Your task to perform on an android device: Find coffee shops on Maps Image 0: 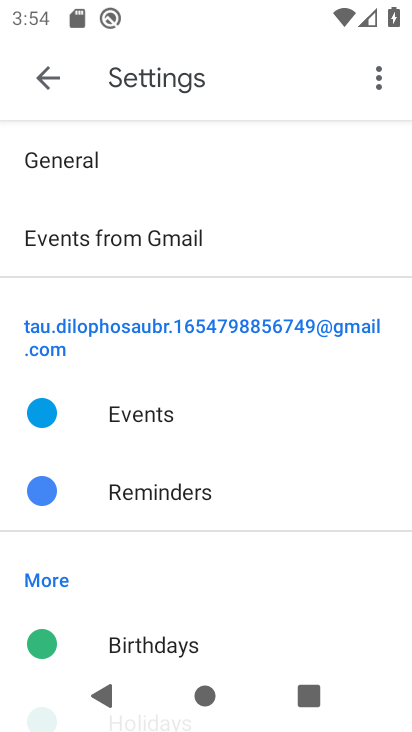
Step 0: press back button
Your task to perform on an android device: Find coffee shops on Maps Image 1: 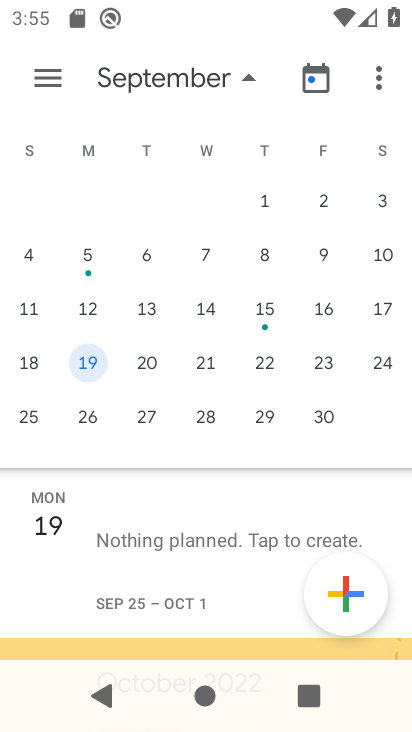
Step 1: press back button
Your task to perform on an android device: Find coffee shops on Maps Image 2: 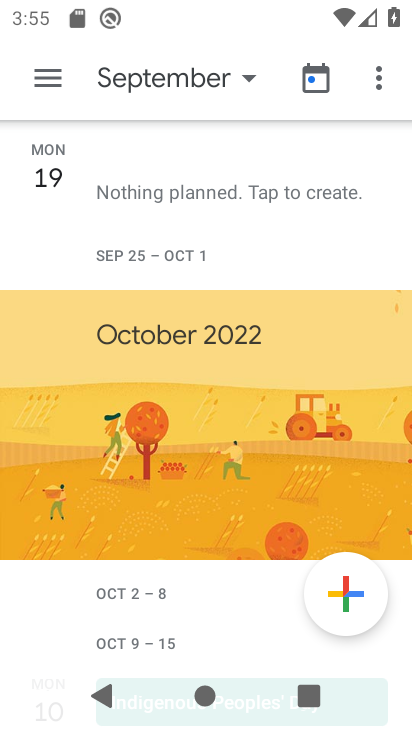
Step 2: press back button
Your task to perform on an android device: Find coffee shops on Maps Image 3: 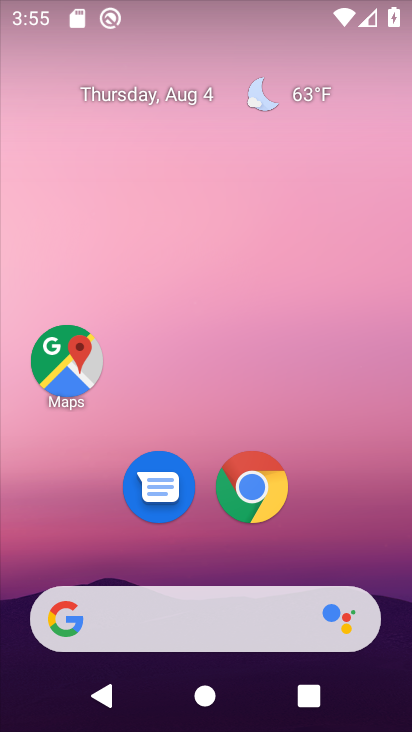
Step 3: drag from (175, 554) to (227, 53)
Your task to perform on an android device: Find coffee shops on Maps Image 4: 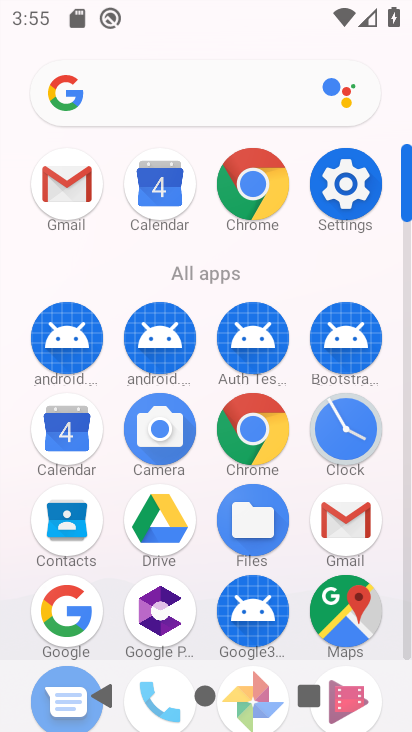
Step 4: click (328, 597)
Your task to perform on an android device: Find coffee shops on Maps Image 5: 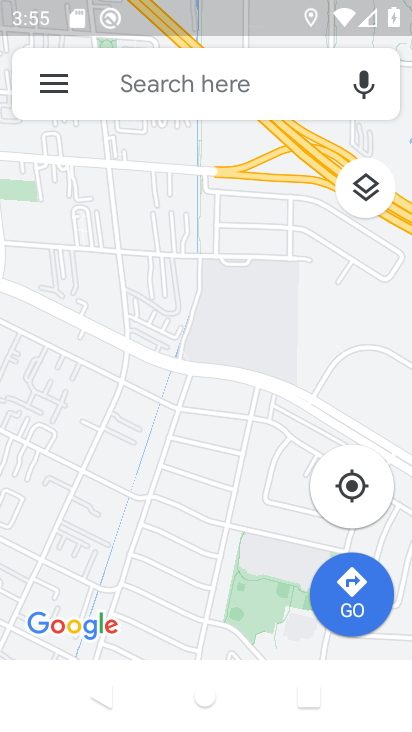
Step 5: click (168, 91)
Your task to perform on an android device: Find coffee shops on Maps Image 6: 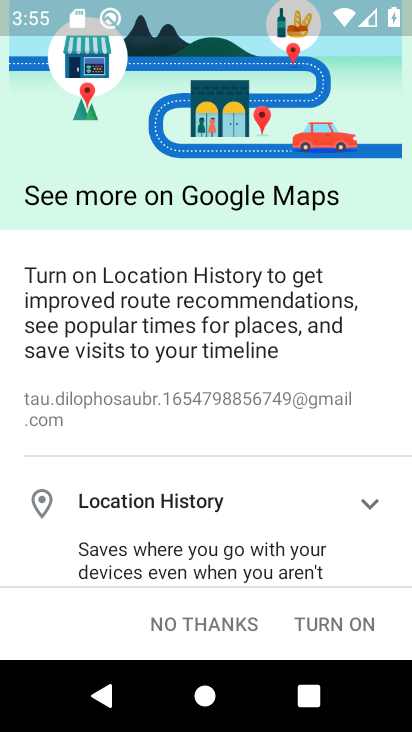
Step 6: type "coffe shops"
Your task to perform on an android device: Find coffee shops on Maps Image 7: 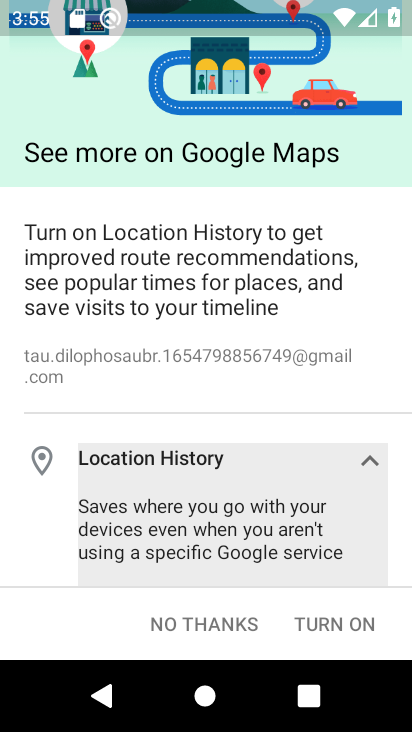
Step 7: click (199, 623)
Your task to perform on an android device: Find coffee shops on Maps Image 8: 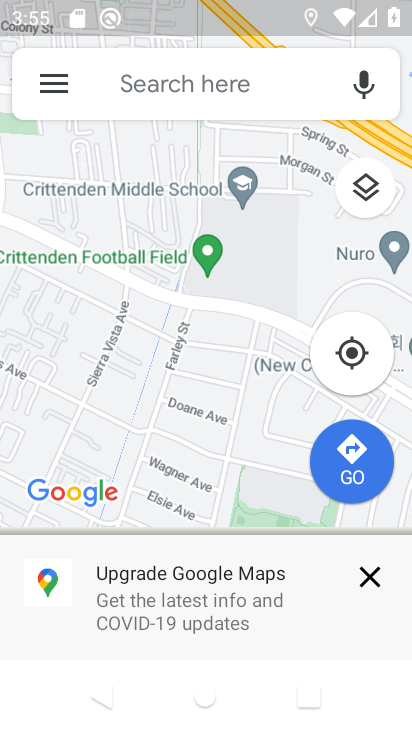
Step 8: click (192, 84)
Your task to perform on an android device: Find coffee shops on Maps Image 9: 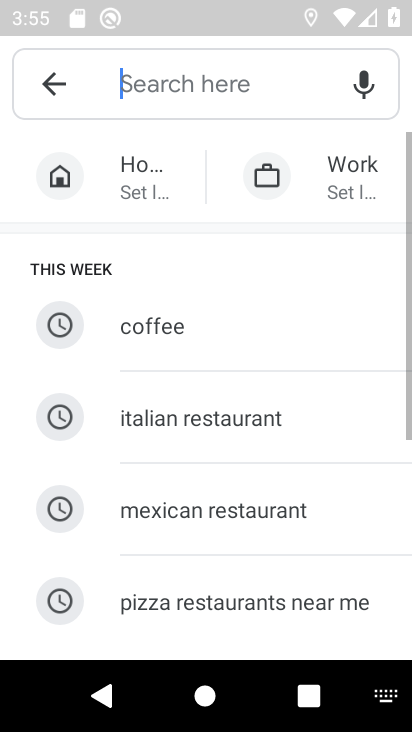
Step 9: click (184, 334)
Your task to perform on an android device: Find coffee shops on Maps Image 10: 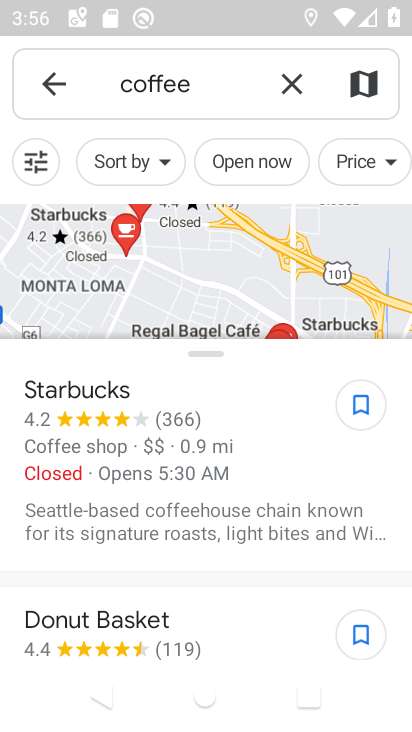
Step 10: task complete